Your task to perform on an android device: Do I have any events tomorrow? Image 0: 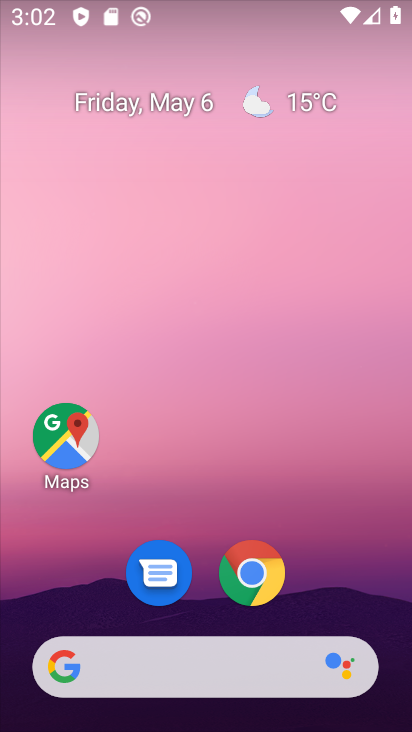
Step 0: drag from (217, 610) to (109, 0)
Your task to perform on an android device: Do I have any events tomorrow? Image 1: 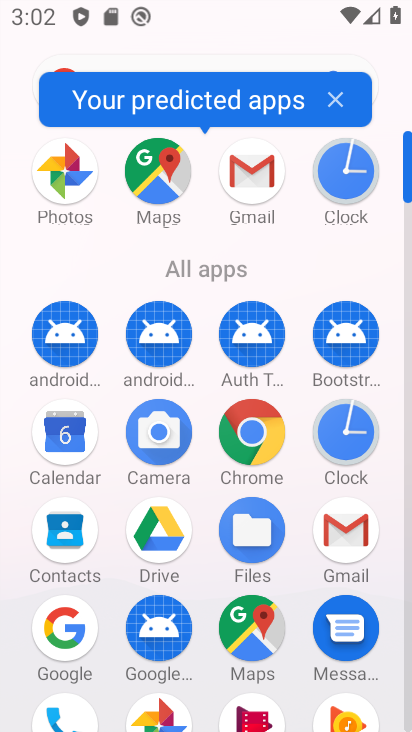
Step 1: drag from (201, 591) to (191, 155)
Your task to perform on an android device: Do I have any events tomorrow? Image 2: 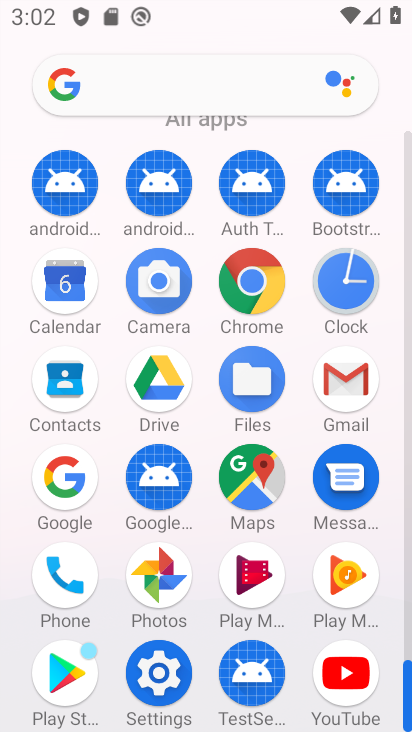
Step 2: click (73, 307)
Your task to perform on an android device: Do I have any events tomorrow? Image 3: 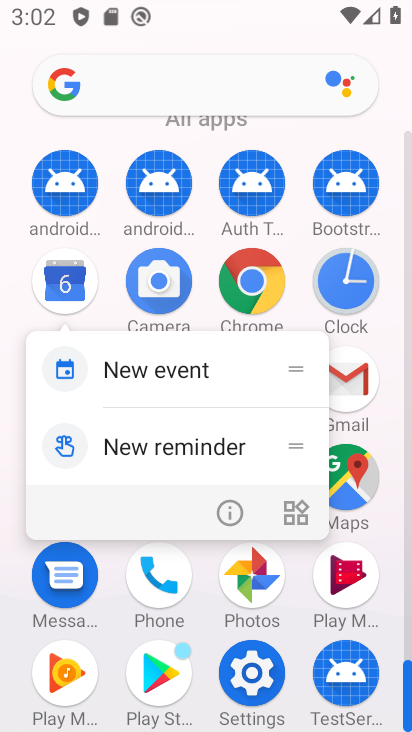
Step 3: click (229, 523)
Your task to perform on an android device: Do I have any events tomorrow? Image 4: 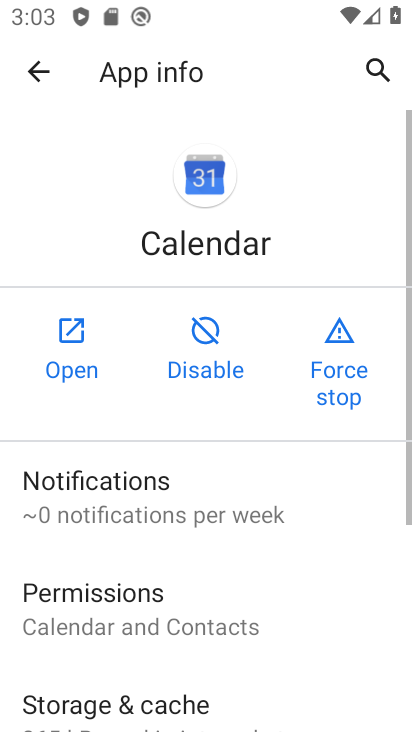
Step 4: click (68, 363)
Your task to perform on an android device: Do I have any events tomorrow? Image 5: 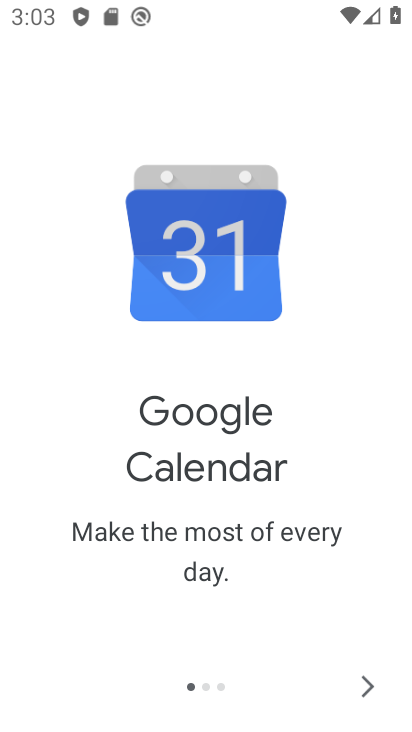
Step 5: click (357, 674)
Your task to perform on an android device: Do I have any events tomorrow? Image 6: 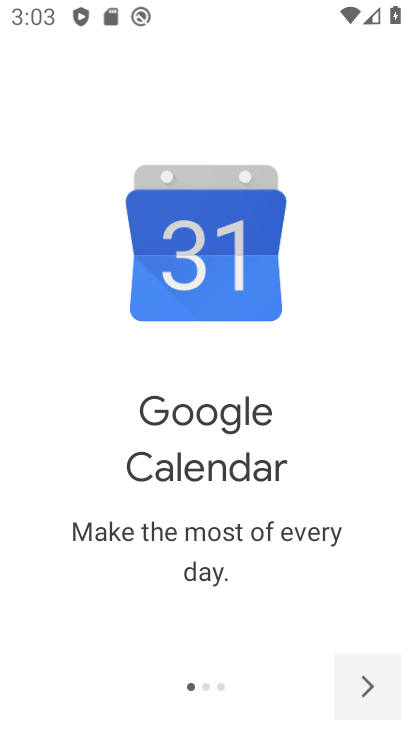
Step 6: click (357, 674)
Your task to perform on an android device: Do I have any events tomorrow? Image 7: 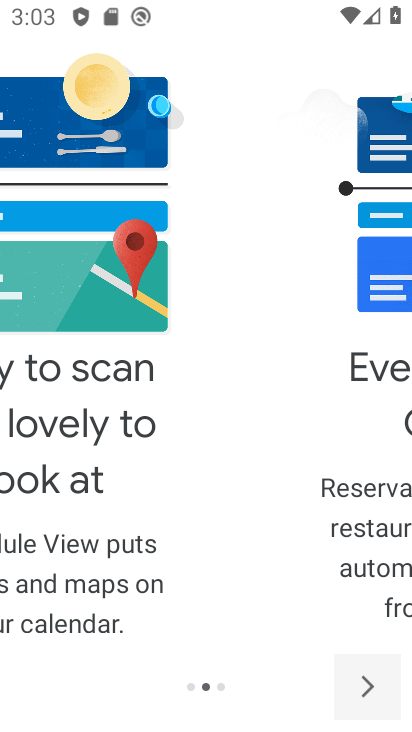
Step 7: click (356, 671)
Your task to perform on an android device: Do I have any events tomorrow? Image 8: 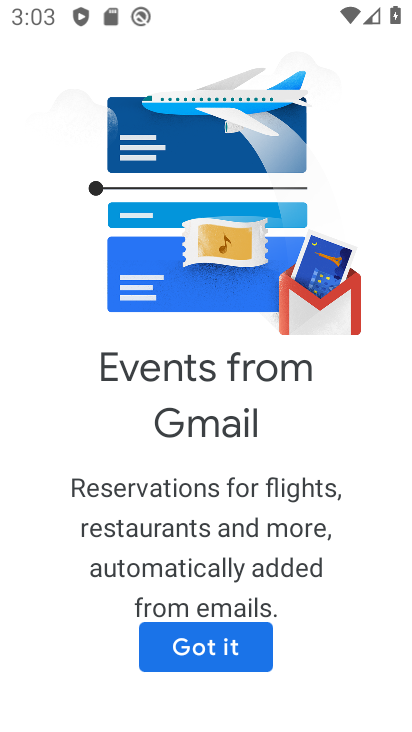
Step 8: click (189, 629)
Your task to perform on an android device: Do I have any events tomorrow? Image 9: 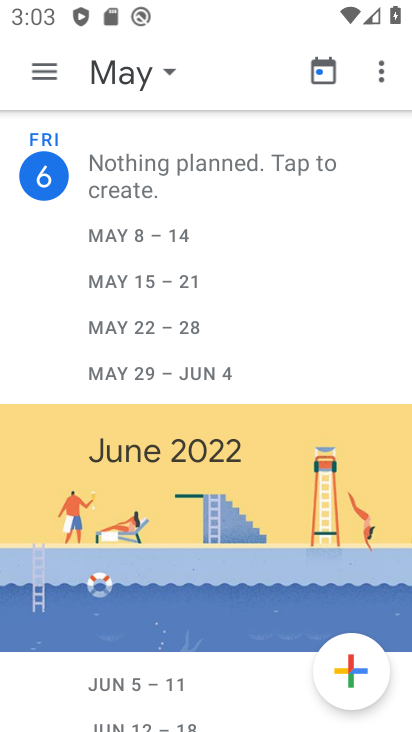
Step 9: click (48, 75)
Your task to perform on an android device: Do I have any events tomorrow? Image 10: 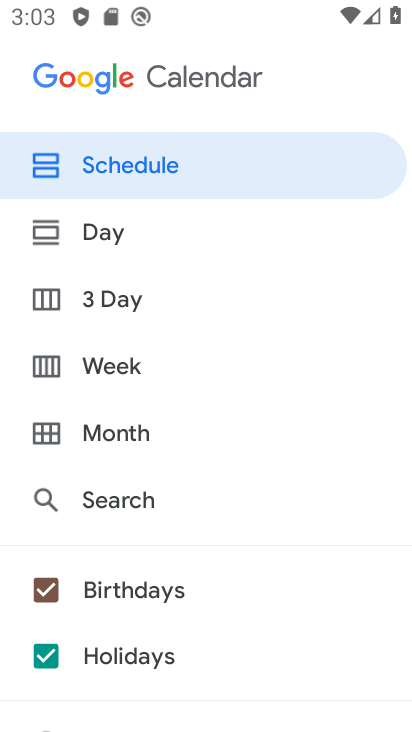
Step 10: press back button
Your task to perform on an android device: Do I have any events tomorrow? Image 11: 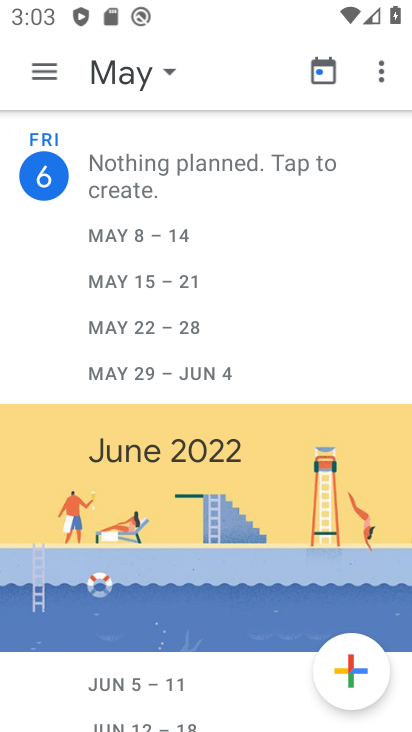
Step 11: click (97, 92)
Your task to perform on an android device: Do I have any events tomorrow? Image 12: 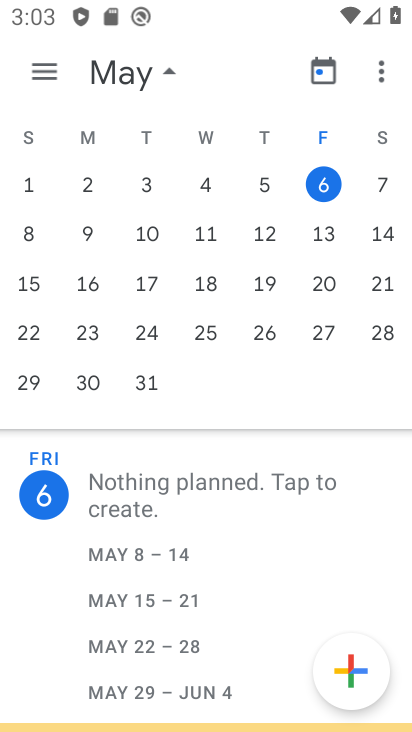
Step 12: drag from (224, 589) to (278, 173)
Your task to perform on an android device: Do I have any events tomorrow? Image 13: 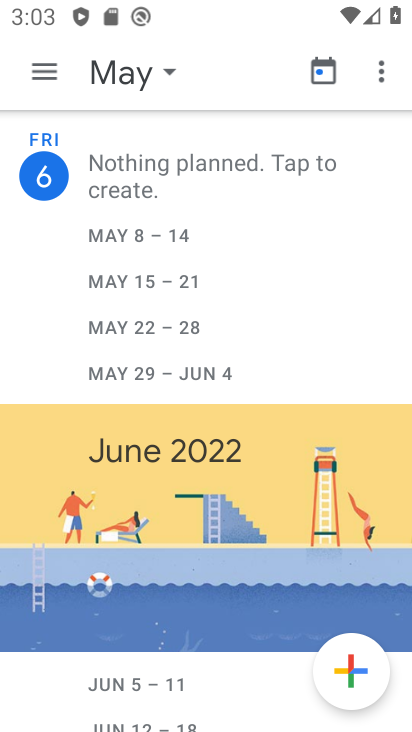
Step 13: click (131, 79)
Your task to perform on an android device: Do I have any events tomorrow? Image 14: 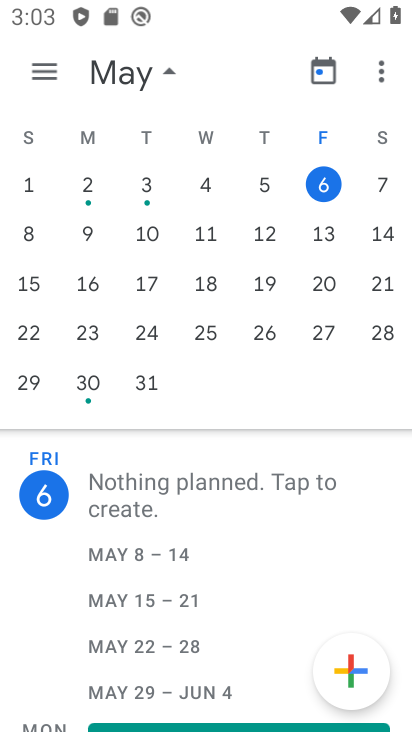
Step 14: click (399, 179)
Your task to perform on an android device: Do I have any events tomorrow? Image 15: 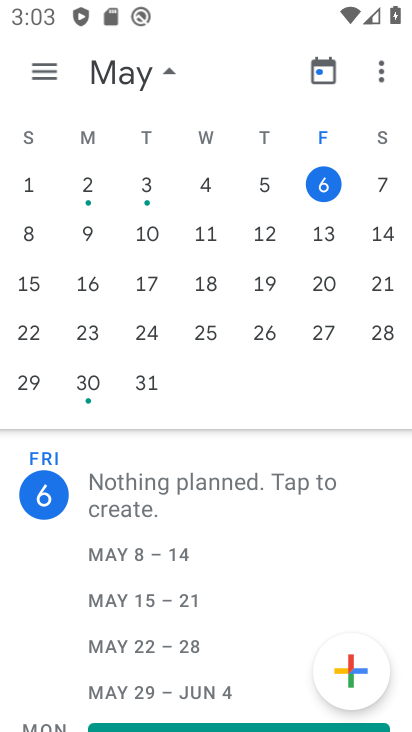
Step 15: click (378, 179)
Your task to perform on an android device: Do I have any events tomorrow? Image 16: 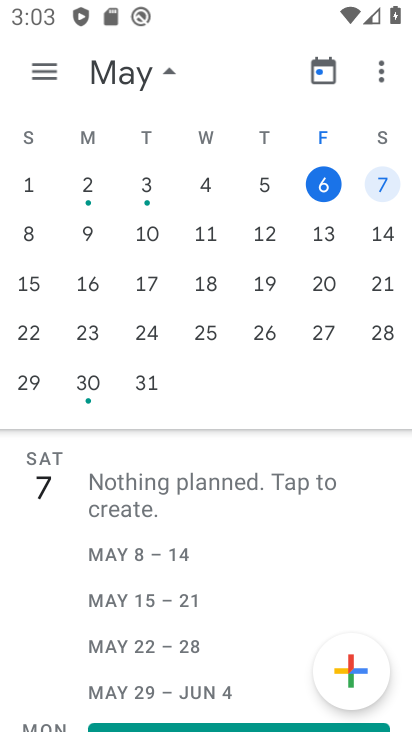
Step 16: task complete